Your task to perform on an android device: change your default location settings in chrome Image 0: 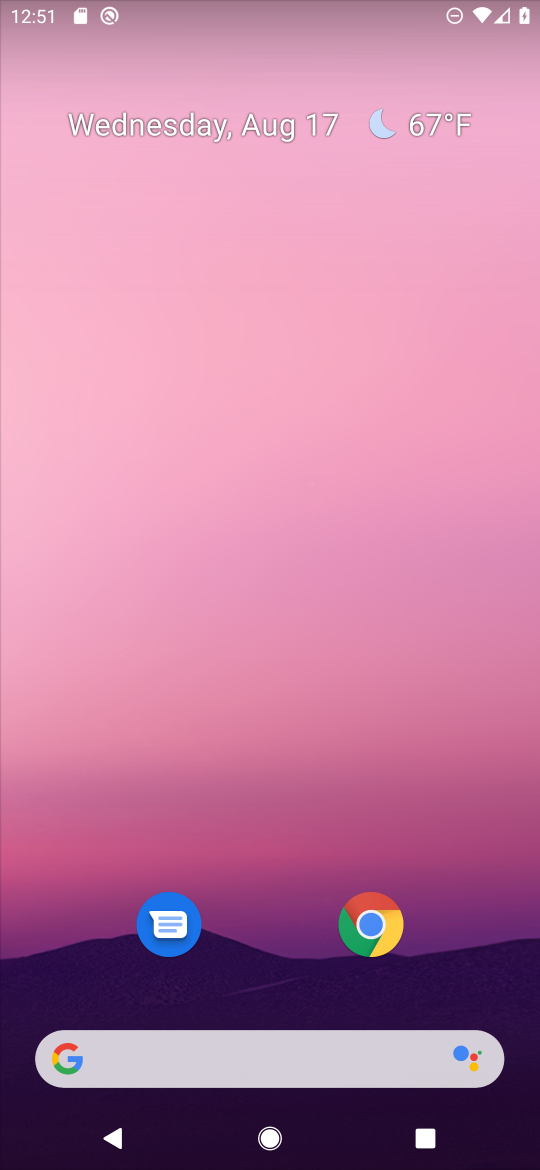
Step 0: click (378, 924)
Your task to perform on an android device: change your default location settings in chrome Image 1: 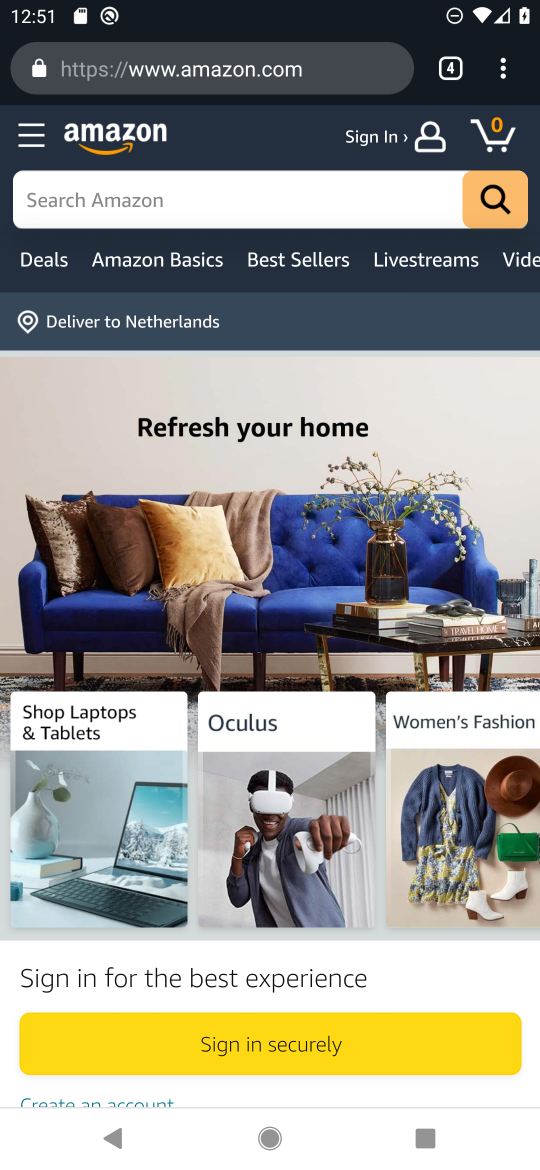
Step 1: click (517, 73)
Your task to perform on an android device: change your default location settings in chrome Image 2: 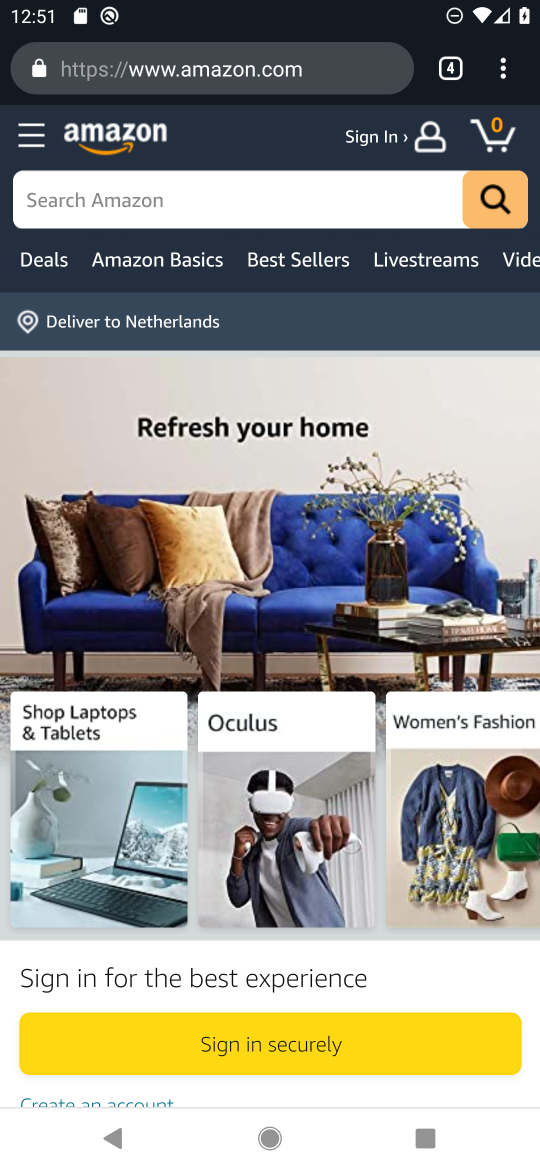
Step 2: click (494, 52)
Your task to perform on an android device: change your default location settings in chrome Image 3: 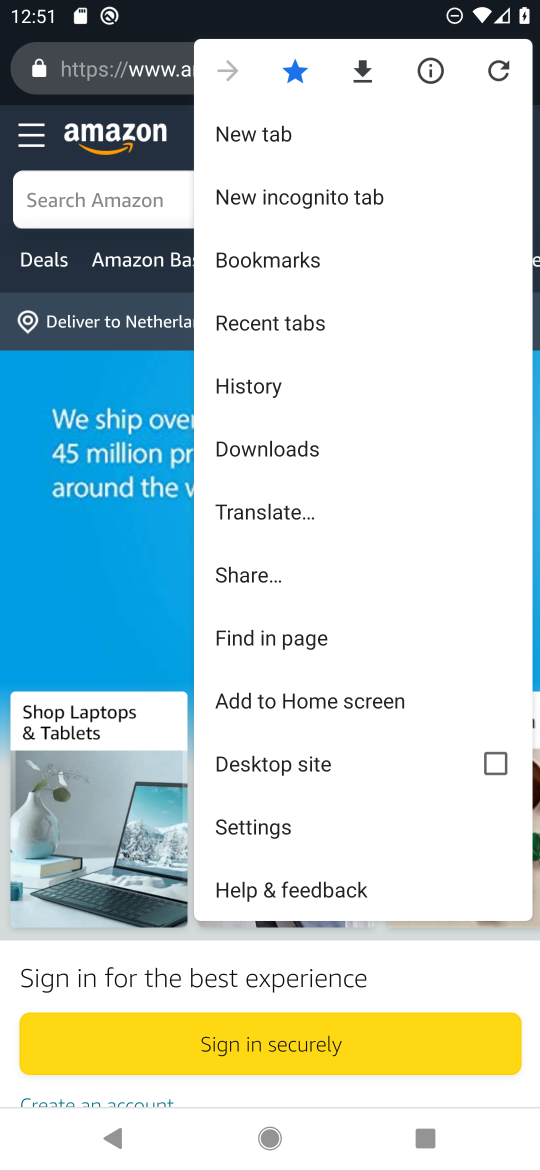
Step 3: click (297, 818)
Your task to perform on an android device: change your default location settings in chrome Image 4: 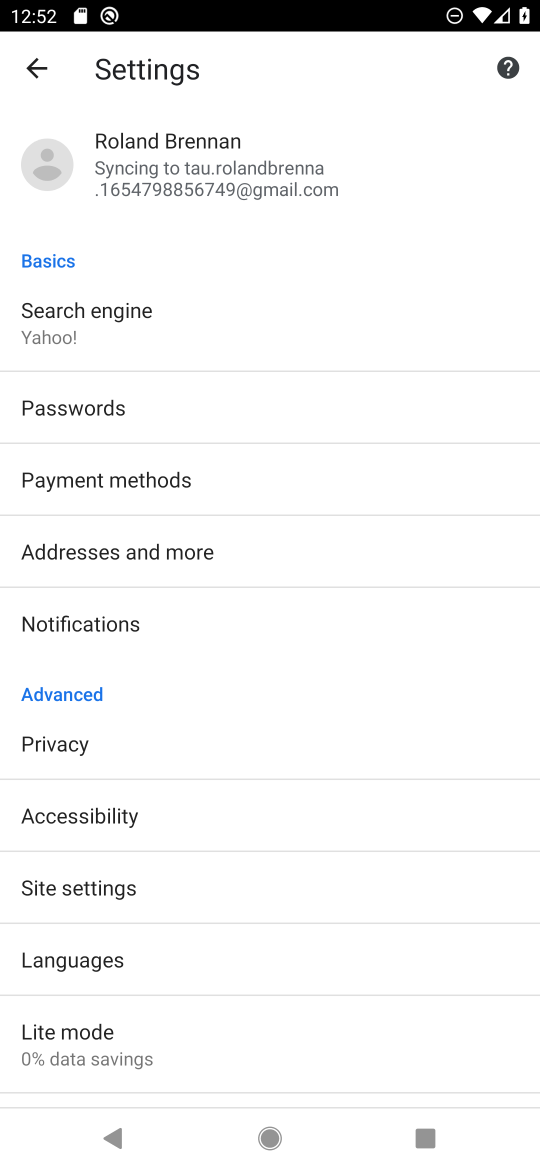
Step 4: drag from (269, 1066) to (256, 307)
Your task to perform on an android device: change your default location settings in chrome Image 5: 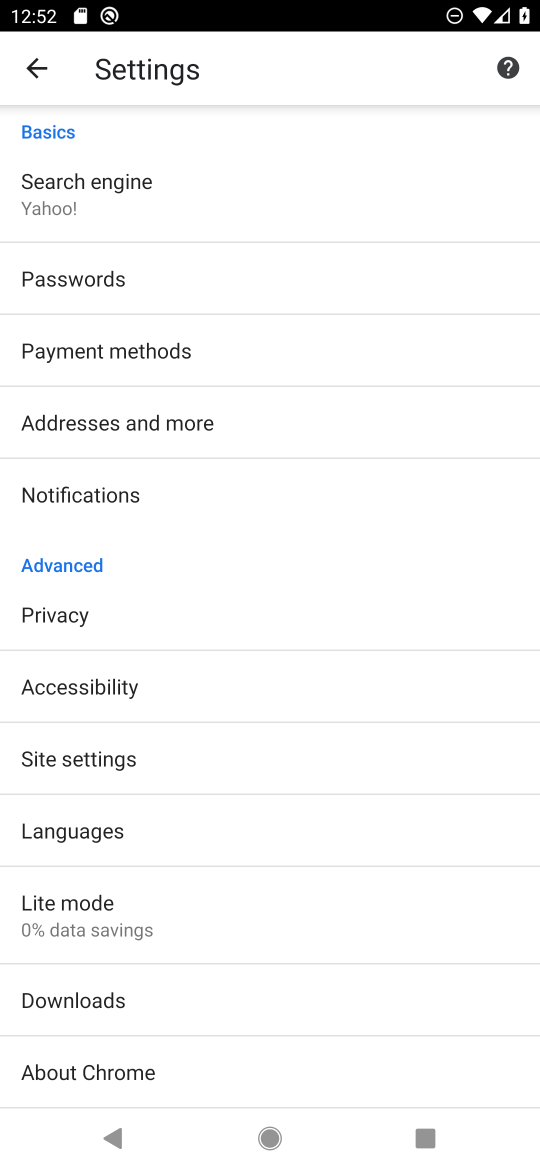
Step 5: drag from (253, 957) to (252, 414)
Your task to perform on an android device: change your default location settings in chrome Image 6: 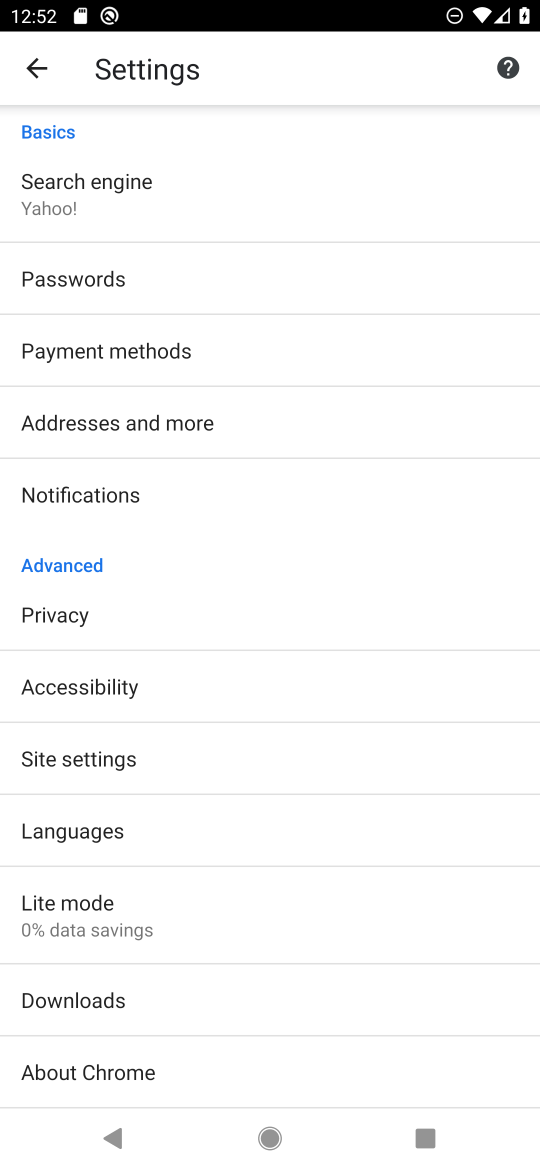
Step 6: click (133, 766)
Your task to perform on an android device: change your default location settings in chrome Image 7: 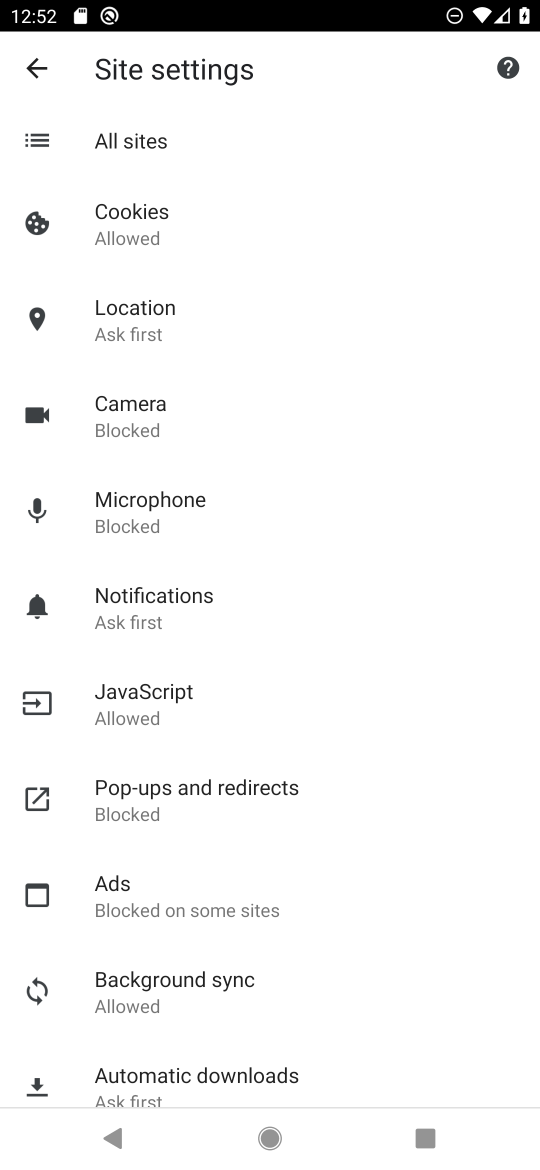
Step 7: click (117, 311)
Your task to perform on an android device: change your default location settings in chrome Image 8: 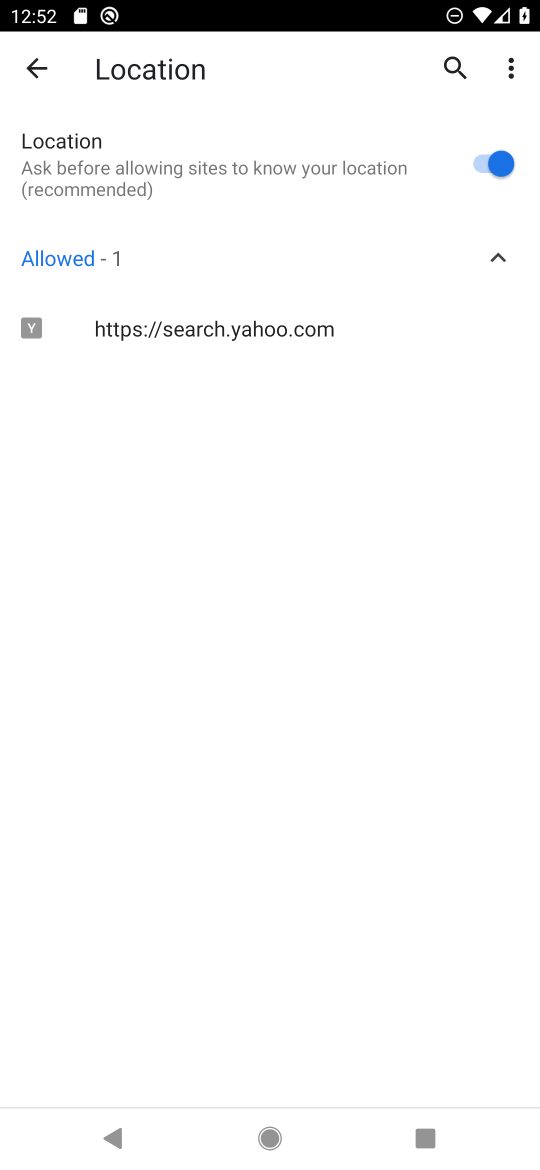
Step 8: click (496, 154)
Your task to perform on an android device: change your default location settings in chrome Image 9: 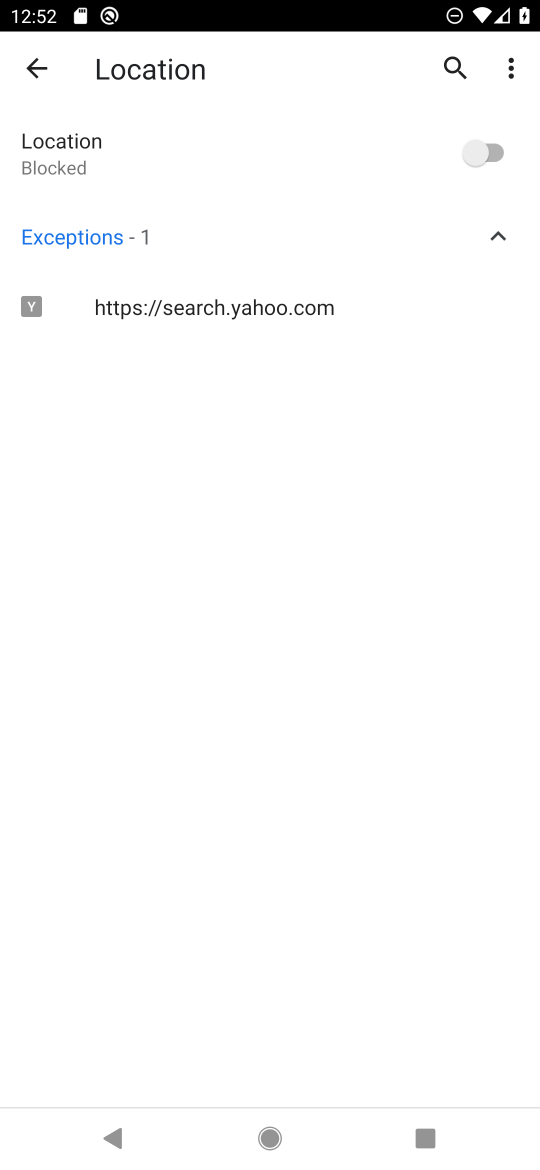
Step 9: task complete